Your task to perform on an android device: Empty the shopping cart on target. Image 0: 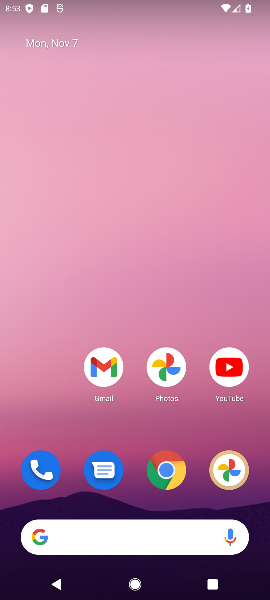
Step 0: click (173, 458)
Your task to perform on an android device: Empty the shopping cart on target. Image 1: 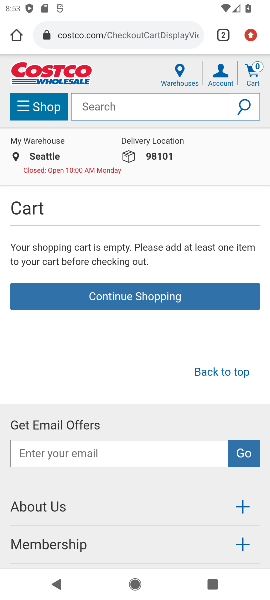
Step 1: click (129, 26)
Your task to perform on an android device: Empty the shopping cart on target. Image 2: 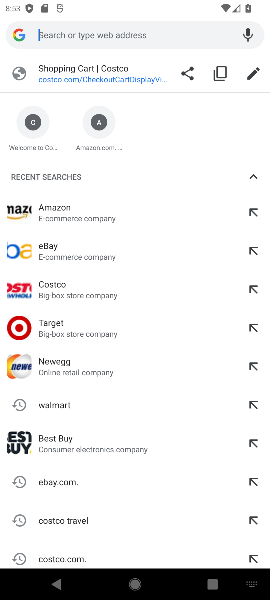
Step 2: click (55, 338)
Your task to perform on an android device: Empty the shopping cart on target. Image 3: 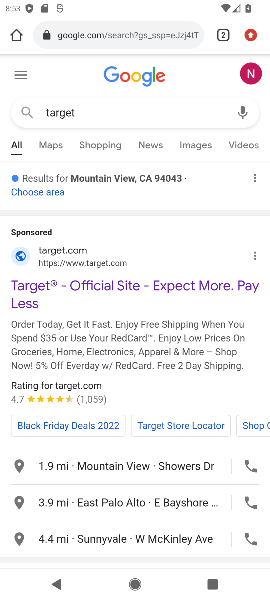
Step 3: click (38, 297)
Your task to perform on an android device: Empty the shopping cart on target. Image 4: 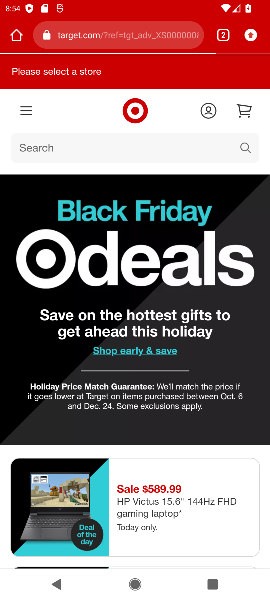
Step 4: click (244, 108)
Your task to perform on an android device: Empty the shopping cart on target. Image 5: 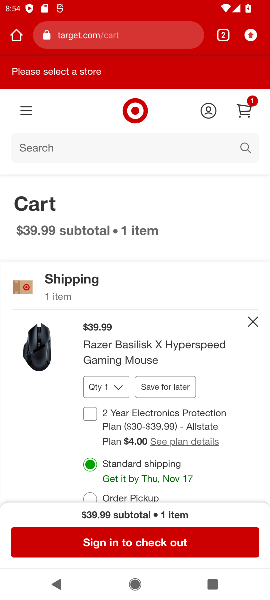
Step 5: click (252, 324)
Your task to perform on an android device: Empty the shopping cart on target. Image 6: 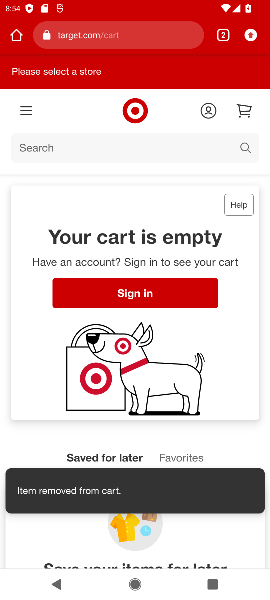
Step 6: task complete